Your task to perform on an android device: Open network settings Image 0: 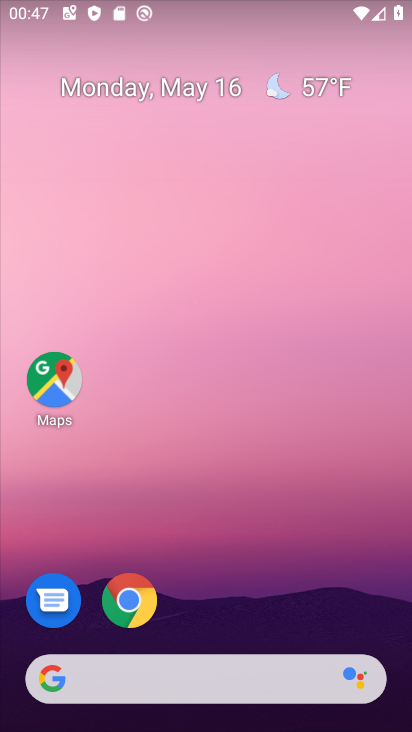
Step 0: drag from (250, 550) to (303, 102)
Your task to perform on an android device: Open network settings Image 1: 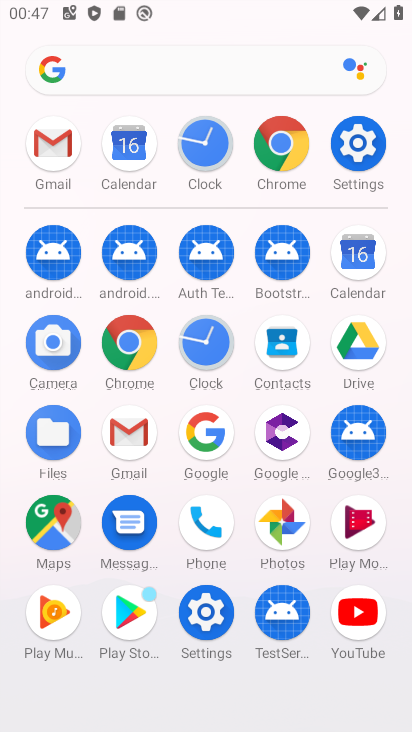
Step 1: click (373, 133)
Your task to perform on an android device: Open network settings Image 2: 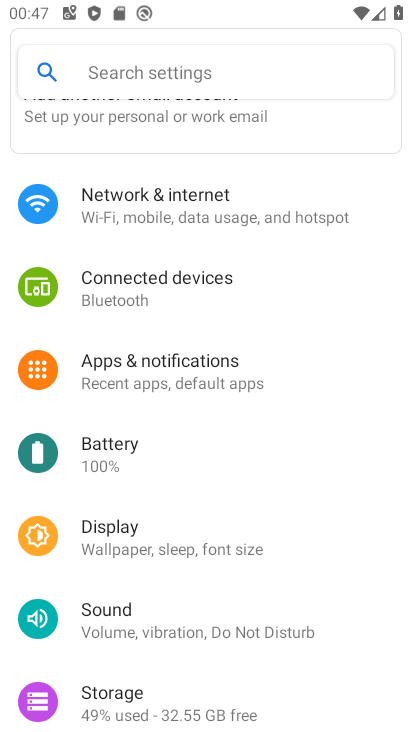
Step 2: click (144, 200)
Your task to perform on an android device: Open network settings Image 3: 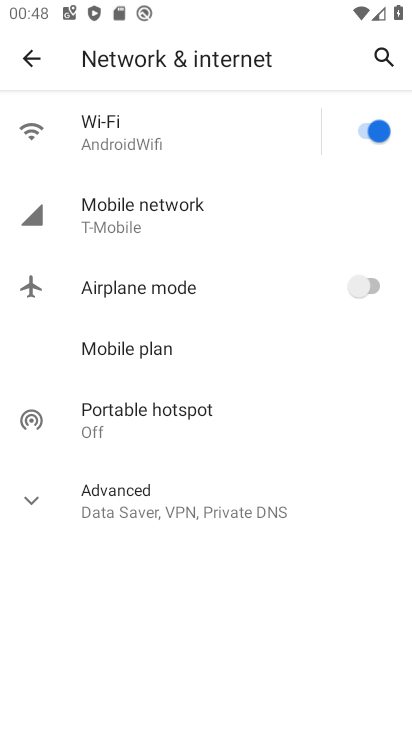
Step 3: task complete